Your task to perform on an android device: Open settings on Google Maps Image 0: 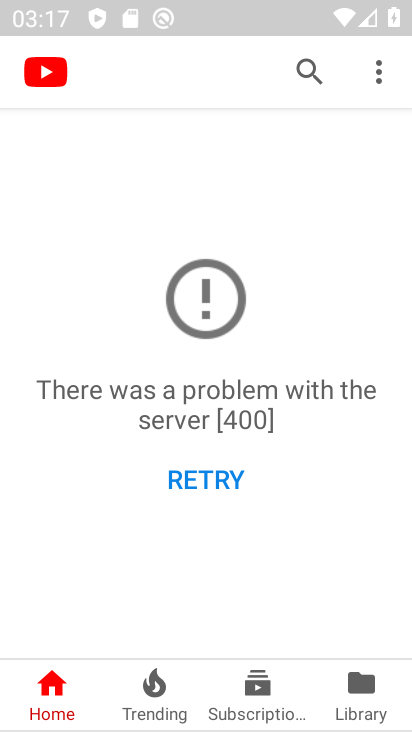
Step 0: press back button
Your task to perform on an android device: Open settings on Google Maps Image 1: 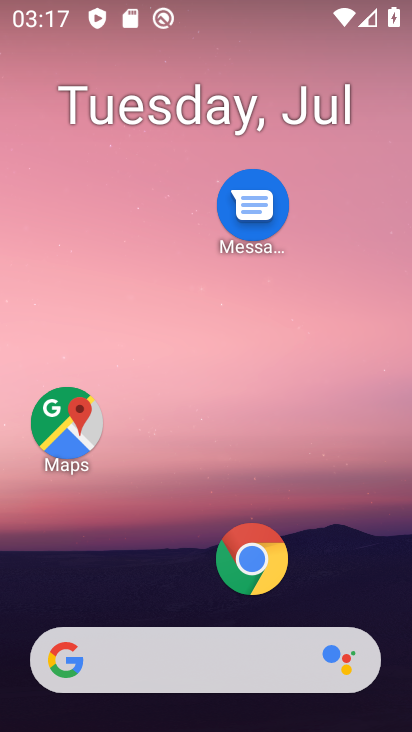
Step 1: click (69, 433)
Your task to perform on an android device: Open settings on Google Maps Image 2: 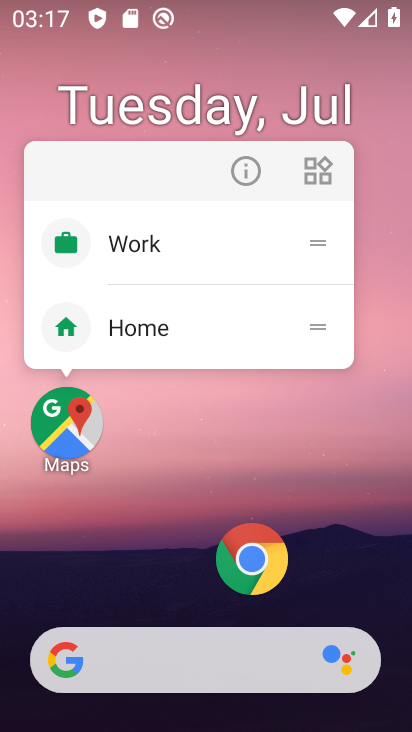
Step 2: click (72, 423)
Your task to perform on an android device: Open settings on Google Maps Image 3: 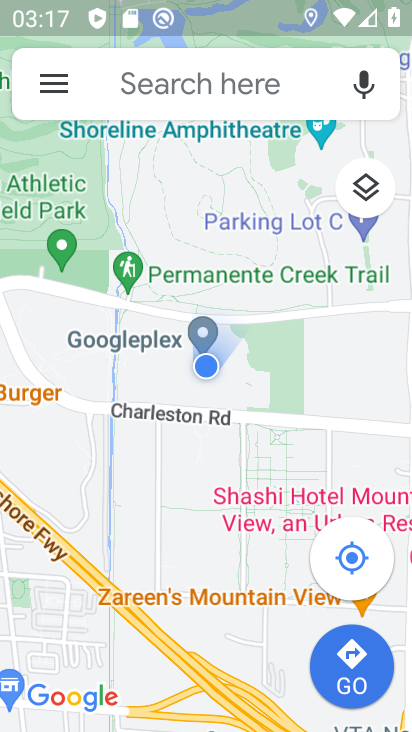
Step 3: click (54, 86)
Your task to perform on an android device: Open settings on Google Maps Image 4: 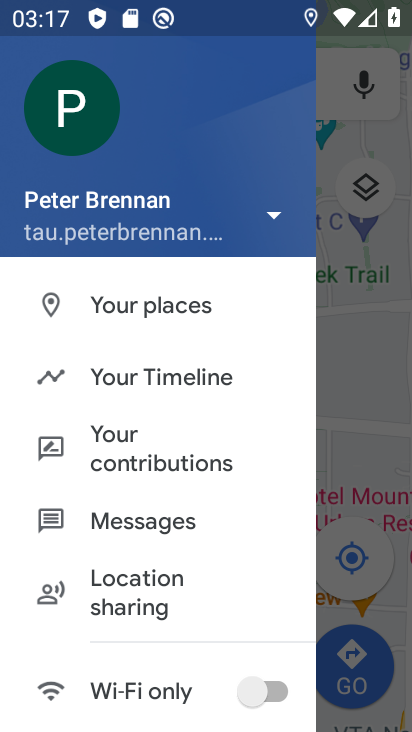
Step 4: drag from (147, 688) to (232, 148)
Your task to perform on an android device: Open settings on Google Maps Image 5: 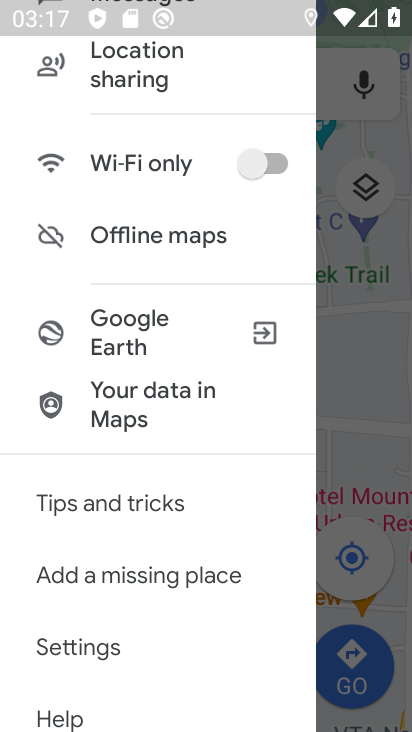
Step 5: click (134, 654)
Your task to perform on an android device: Open settings on Google Maps Image 6: 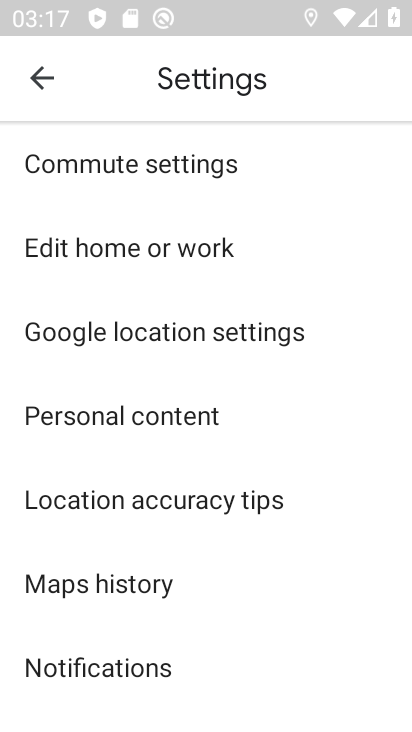
Step 6: task complete